Your task to perform on an android device: What is the news today? Image 0: 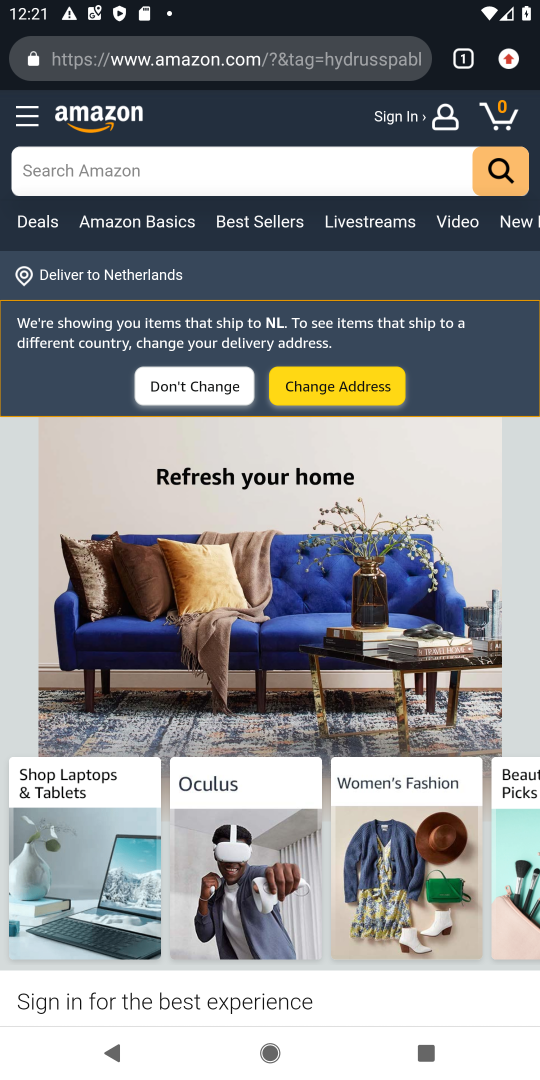
Step 0: press home button
Your task to perform on an android device: What is the news today? Image 1: 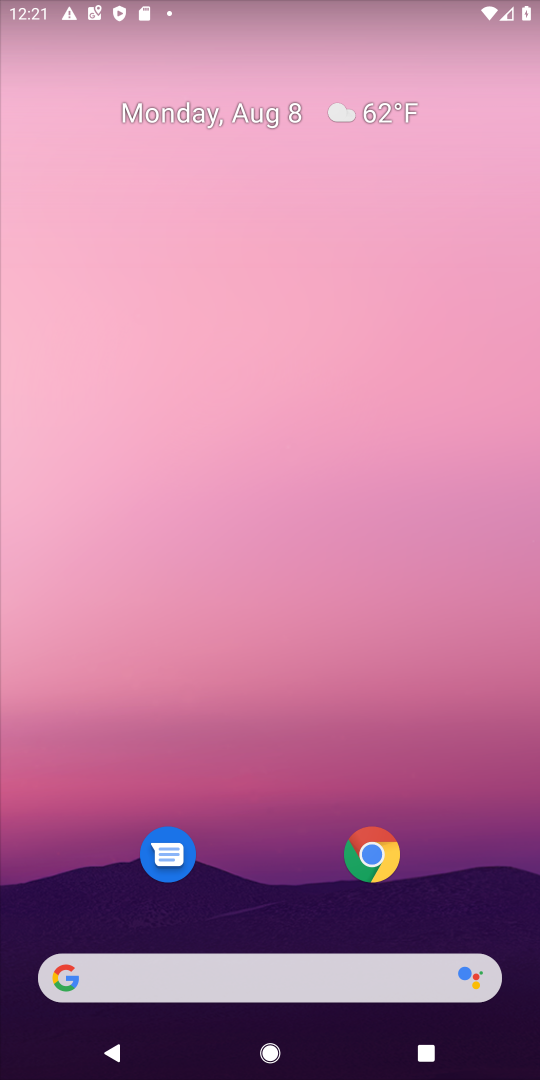
Step 1: click (60, 970)
Your task to perform on an android device: What is the news today? Image 2: 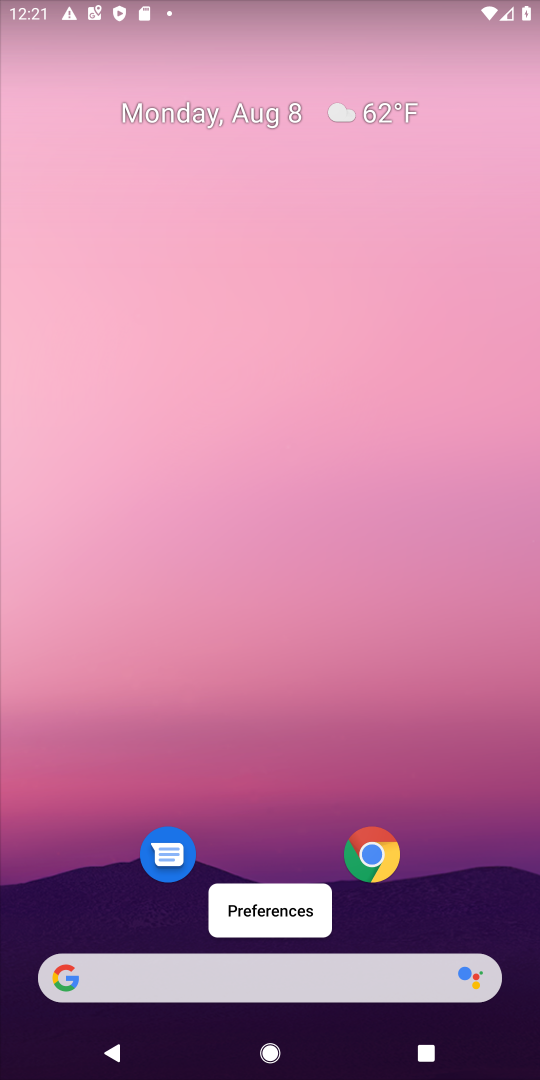
Step 2: click (66, 987)
Your task to perform on an android device: What is the news today? Image 3: 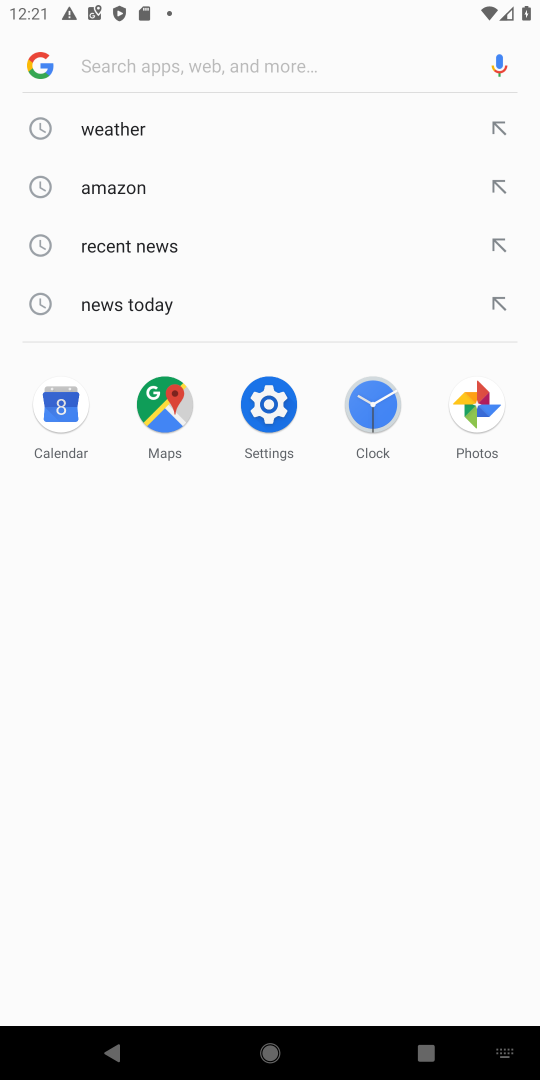
Step 3: click (123, 309)
Your task to perform on an android device: What is the news today? Image 4: 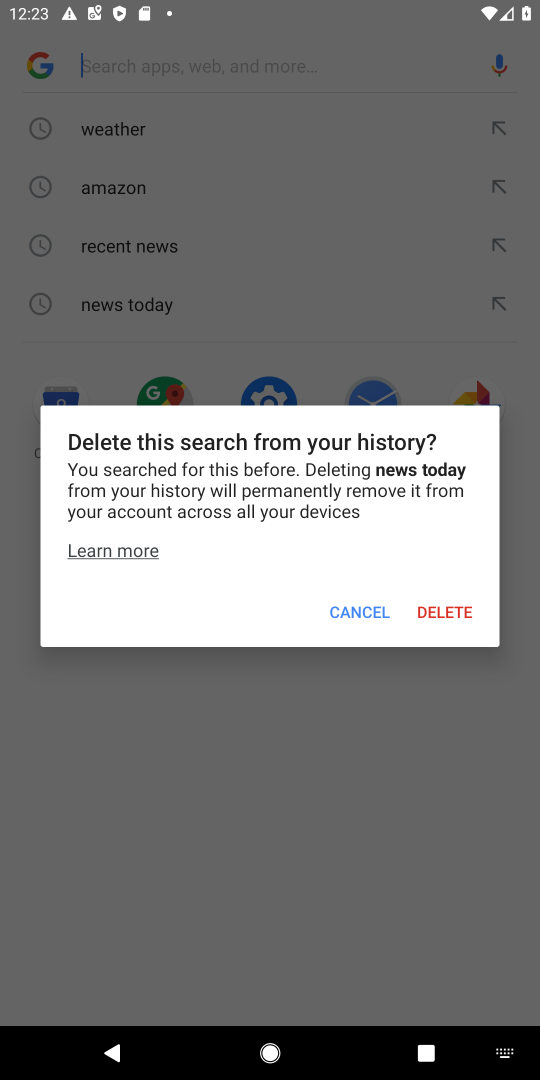
Step 4: click (357, 614)
Your task to perform on an android device: What is the news today? Image 5: 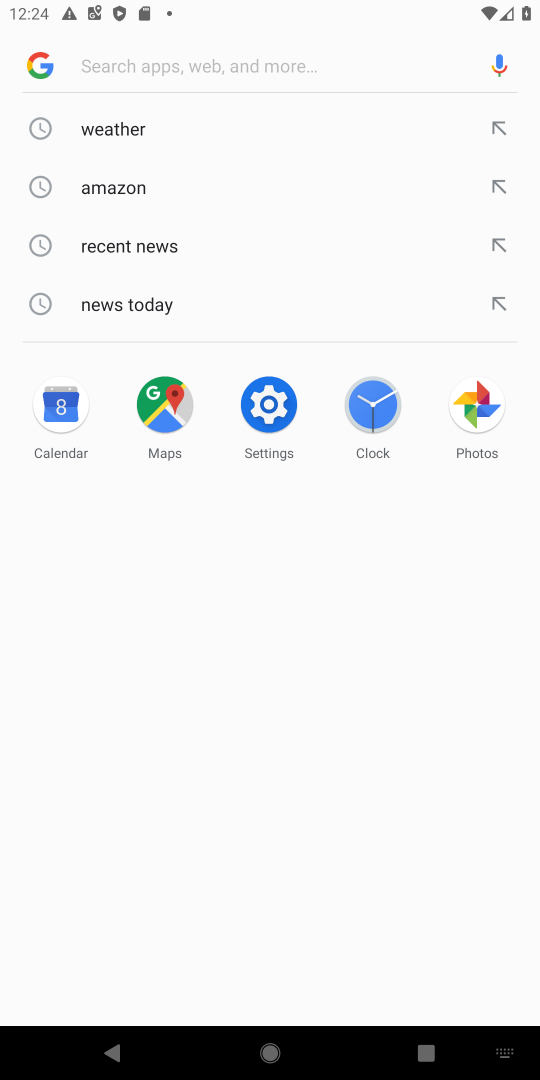
Step 5: click (130, 307)
Your task to perform on an android device: What is the news today? Image 6: 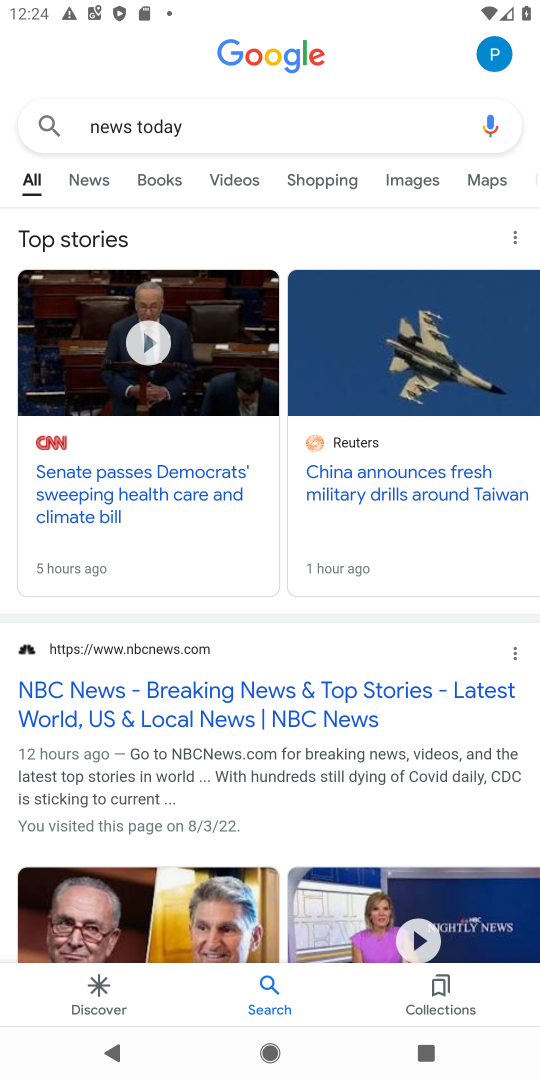
Step 6: task complete